Your task to perform on an android device: change your default location settings in chrome Image 0: 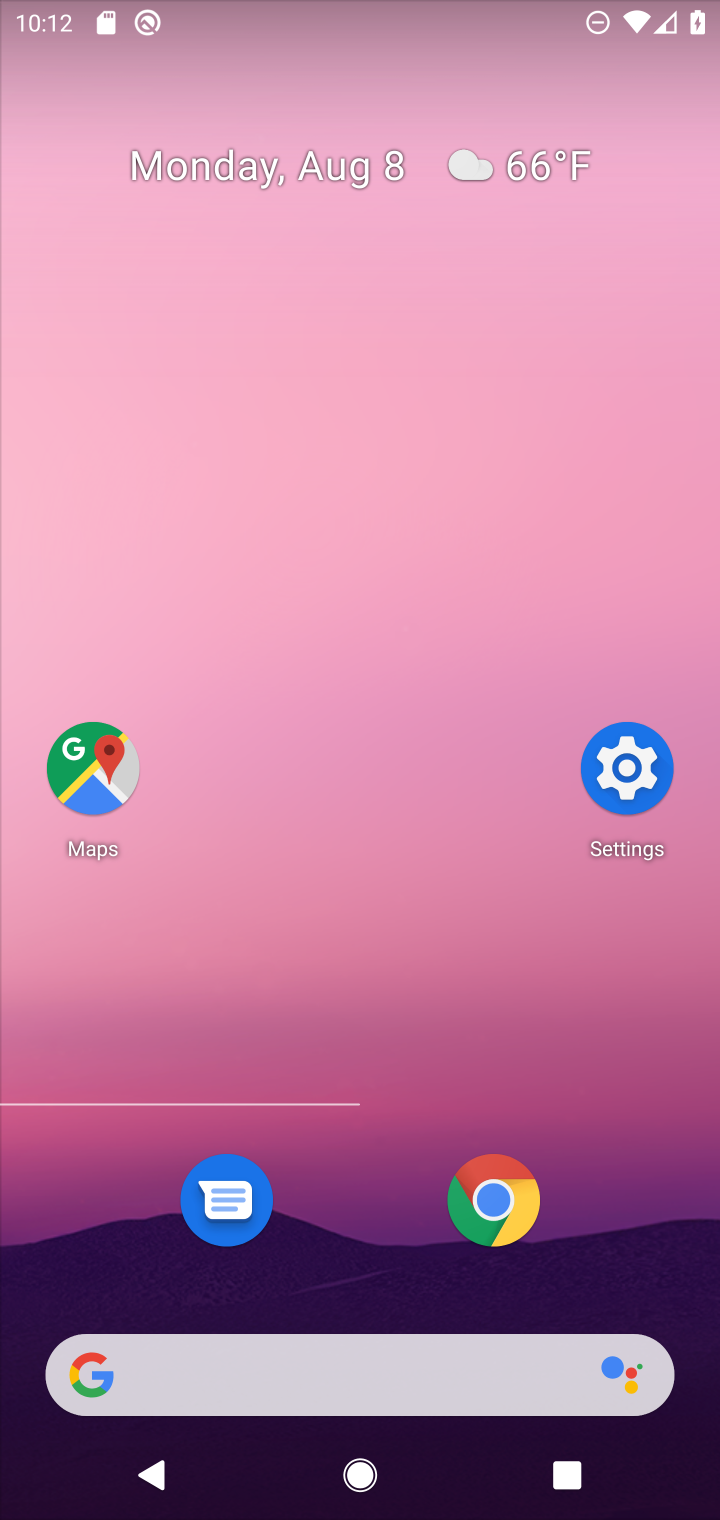
Step 0: press home button
Your task to perform on an android device: change your default location settings in chrome Image 1: 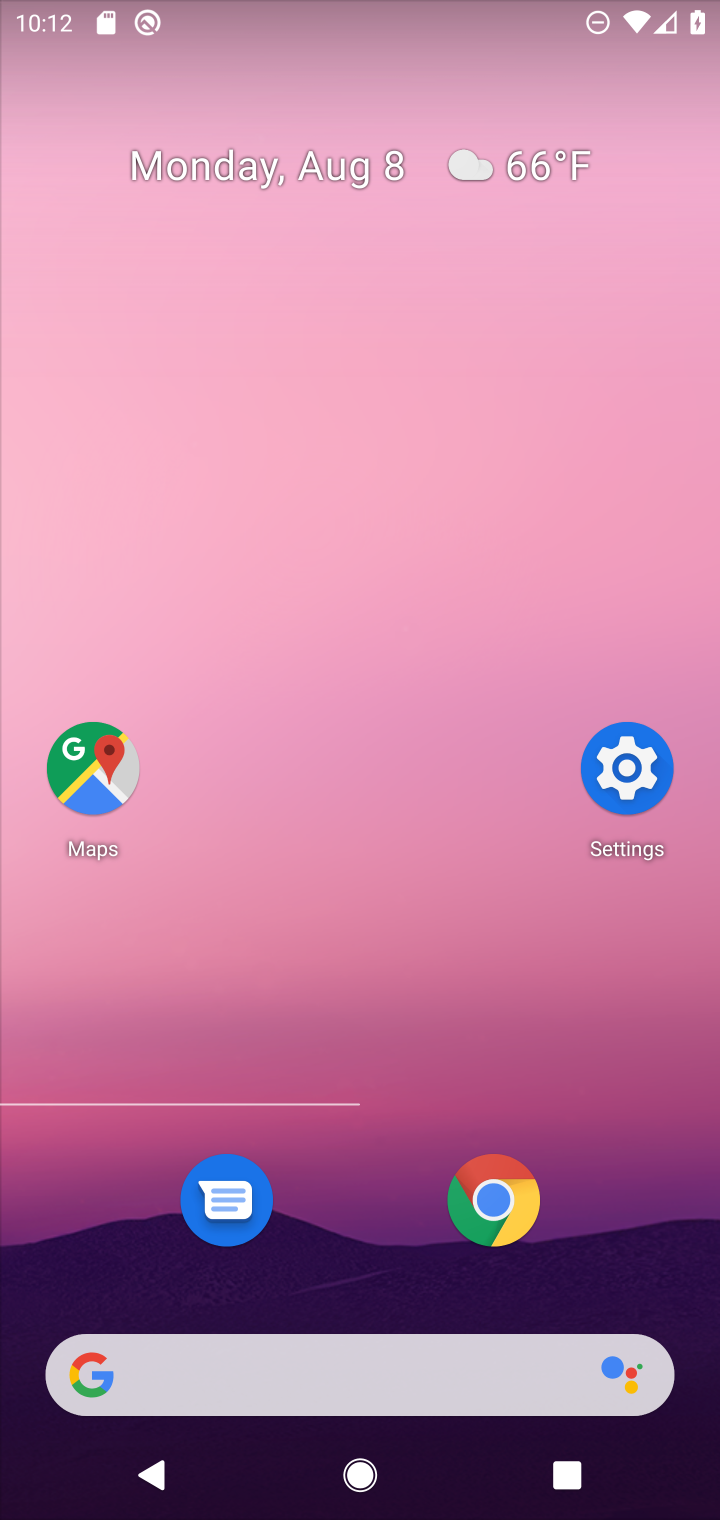
Step 1: click (488, 1206)
Your task to perform on an android device: change your default location settings in chrome Image 2: 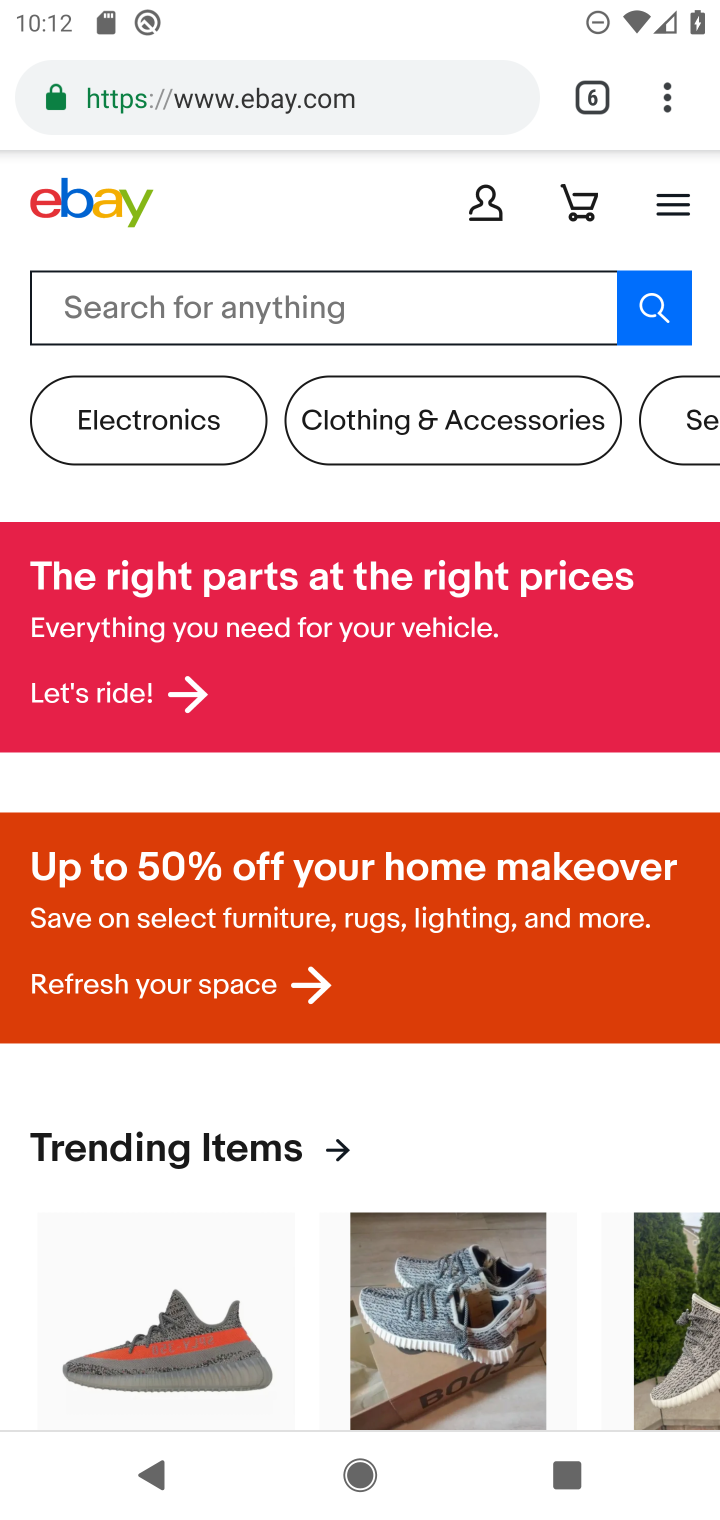
Step 2: click (655, 102)
Your task to perform on an android device: change your default location settings in chrome Image 3: 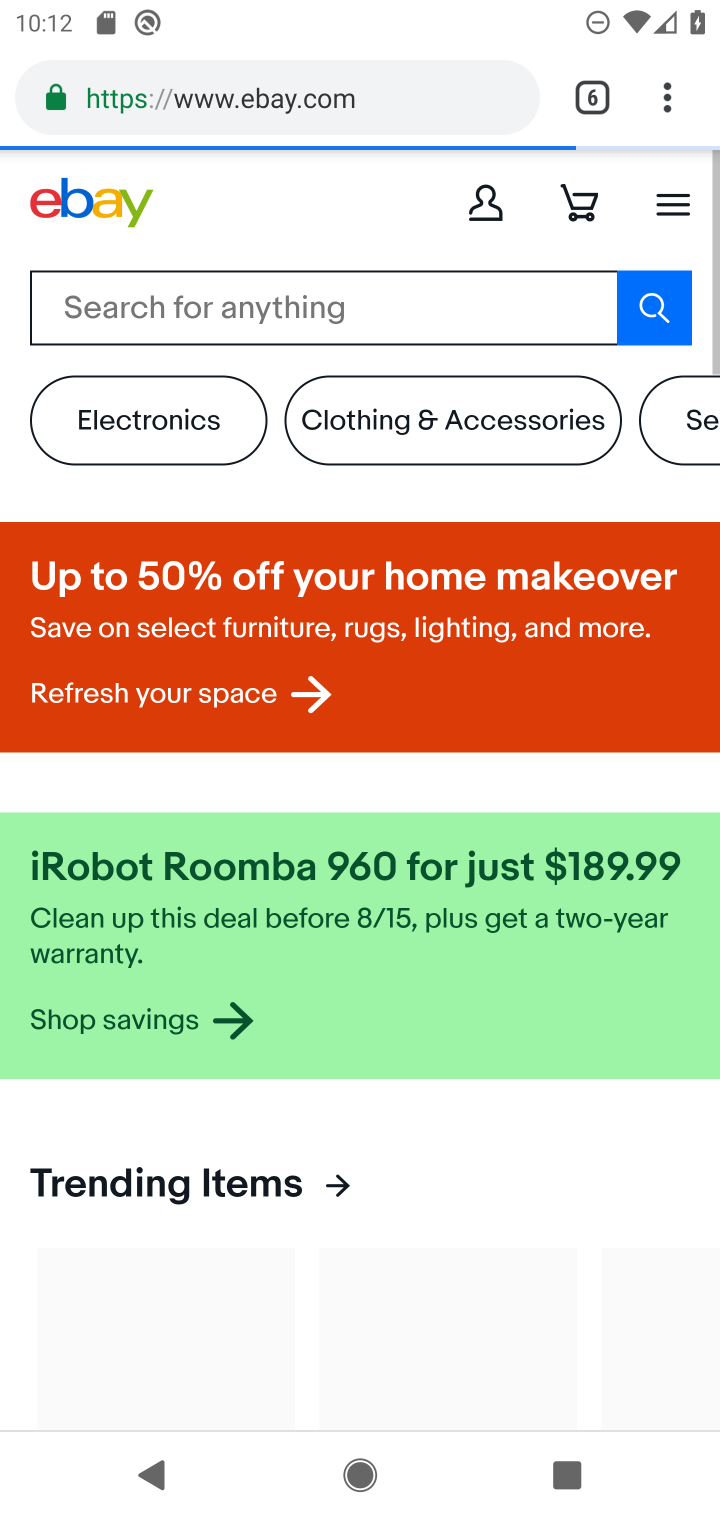
Step 3: drag from (666, 94) to (410, 1277)
Your task to perform on an android device: change your default location settings in chrome Image 4: 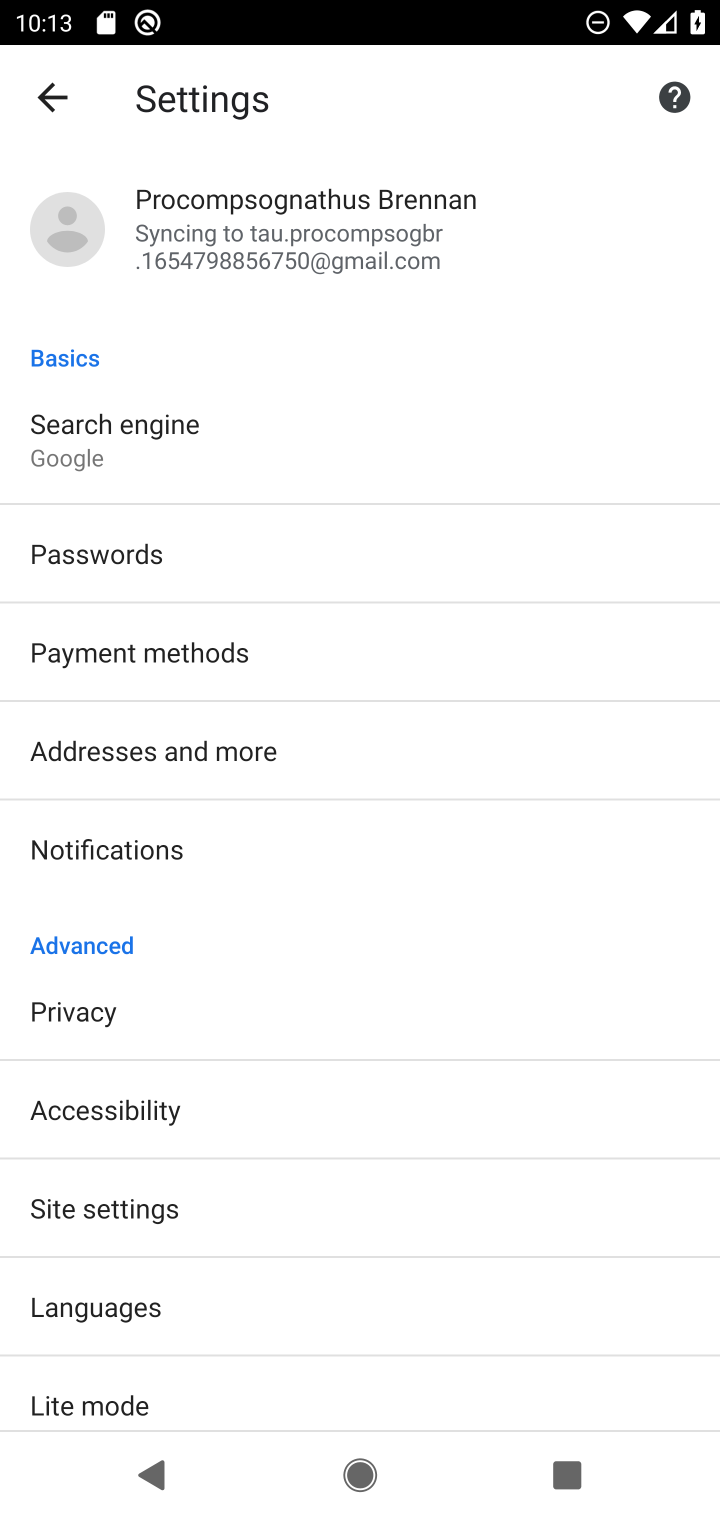
Step 4: click (179, 1201)
Your task to perform on an android device: change your default location settings in chrome Image 5: 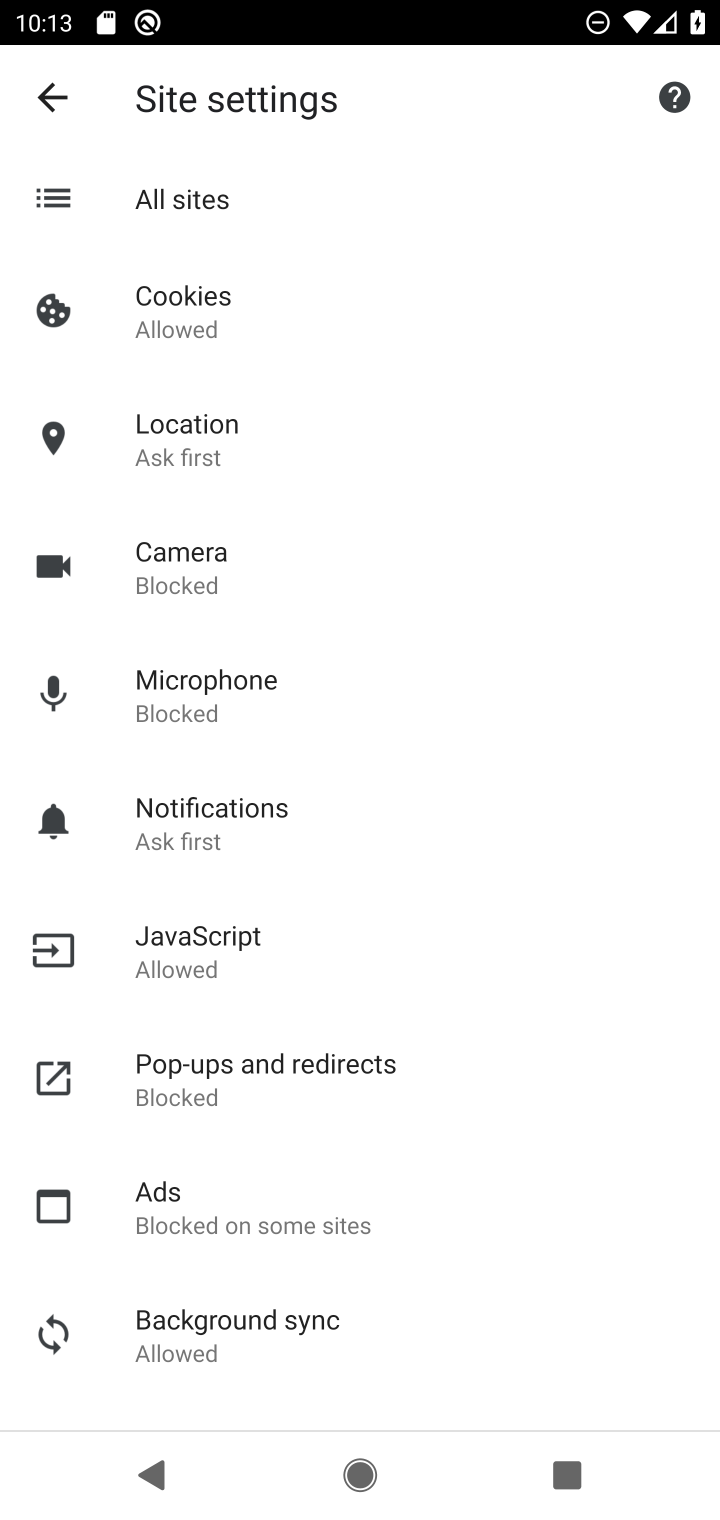
Step 5: click (179, 434)
Your task to perform on an android device: change your default location settings in chrome Image 6: 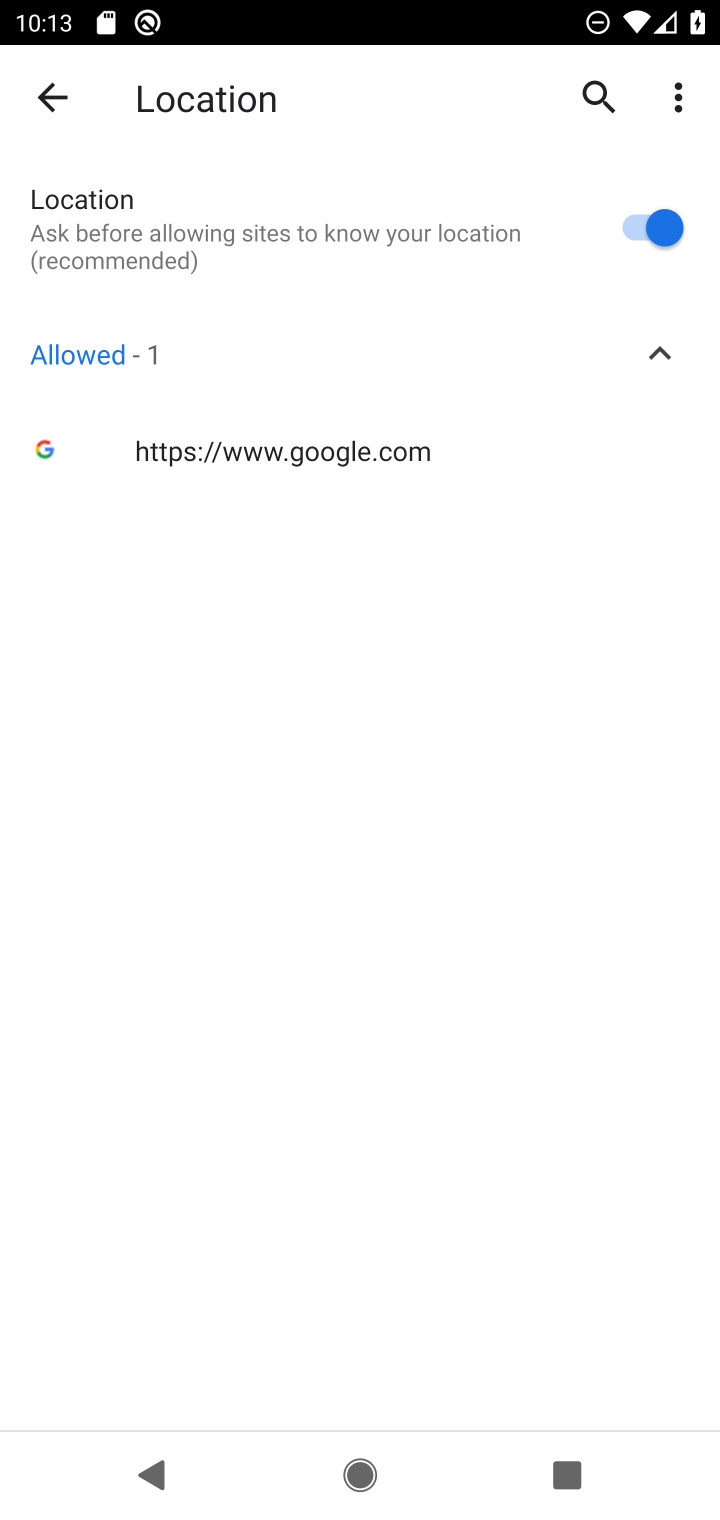
Step 6: click (650, 228)
Your task to perform on an android device: change your default location settings in chrome Image 7: 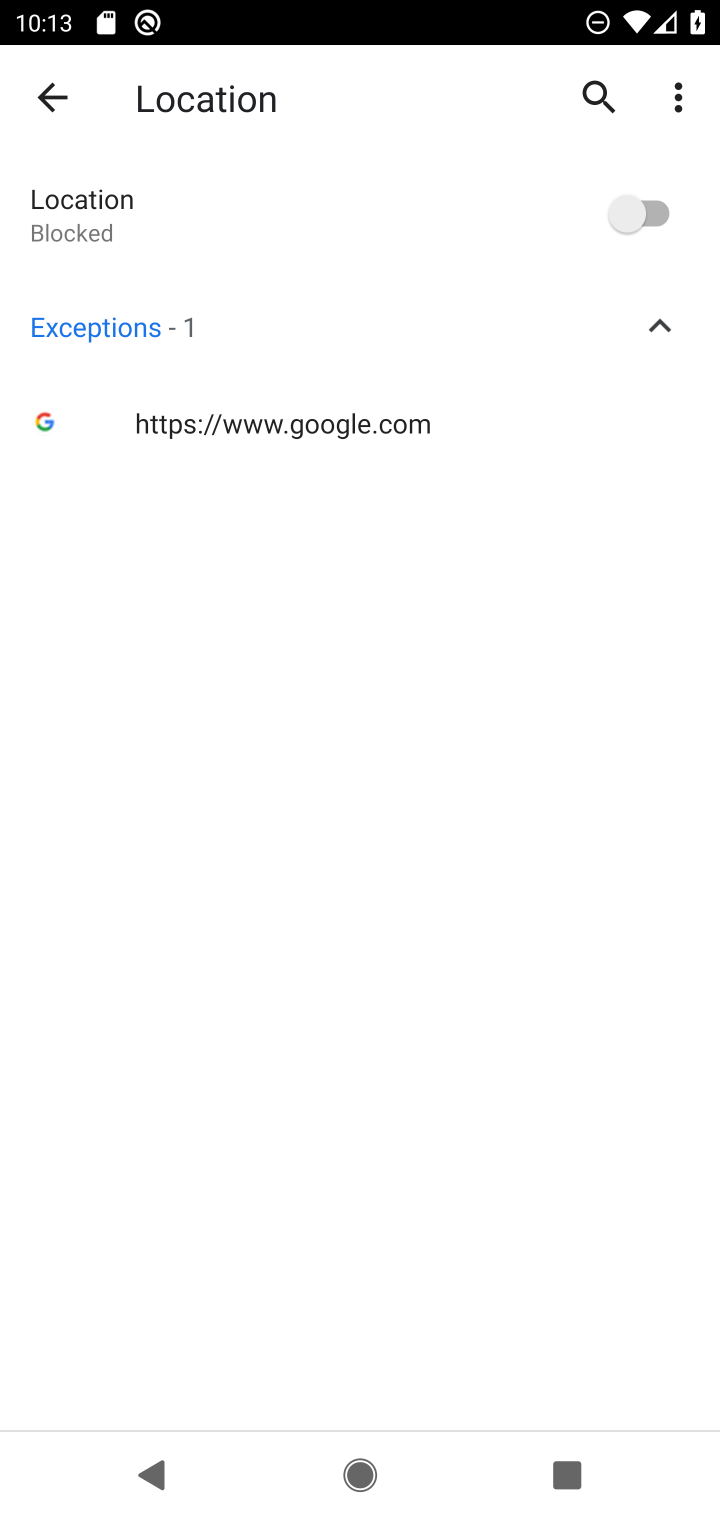
Step 7: task complete